Your task to perform on an android device: add a contact Image 0: 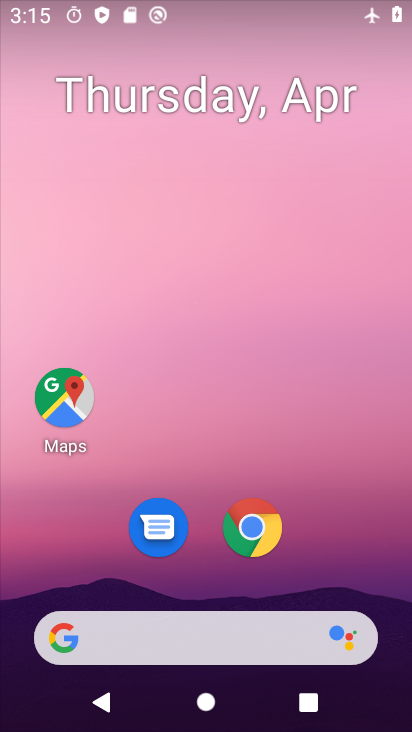
Step 0: drag from (347, 544) to (309, 124)
Your task to perform on an android device: add a contact Image 1: 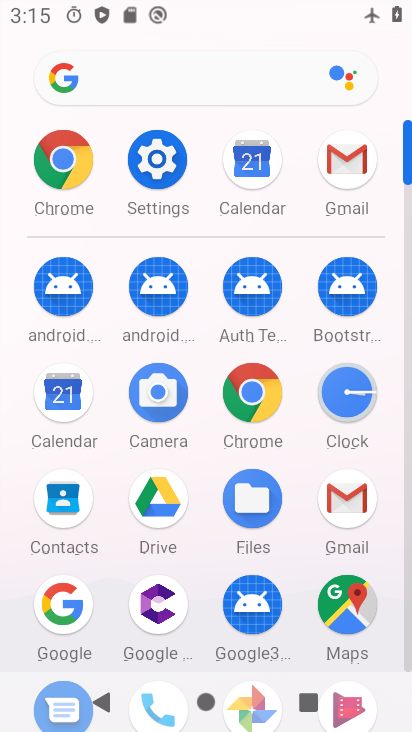
Step 1: click (69, 495)
Your task to perform on an android device: add a contact Image 2: 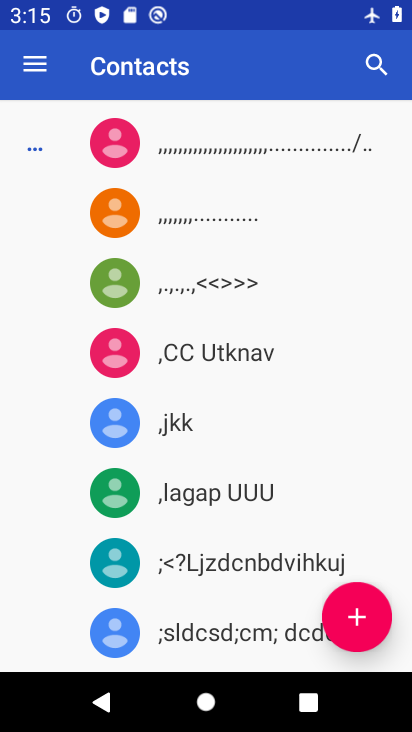
Step 2: click (359, 595)
Your task to perform on an android device: add a contact Image 3: 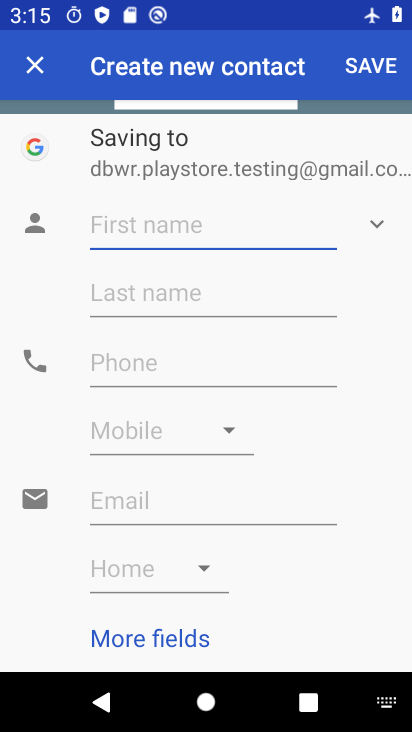
Step 3: type "ffjuyygkjjygkjgkgkgkjjf"
Your task to perform on an android device: add a contact Image 4: 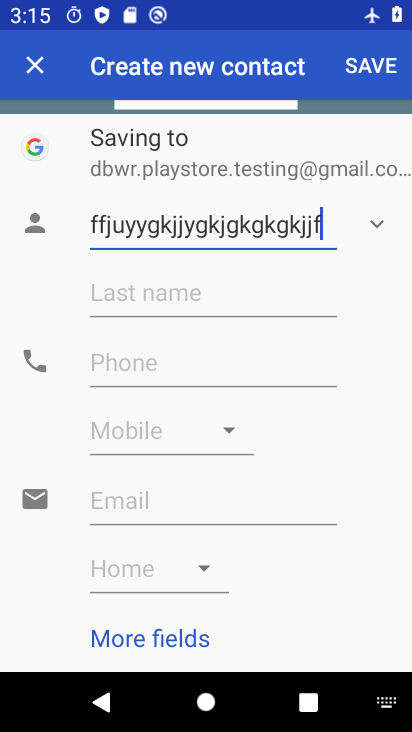
Step 4: click (384, 74)
Your task to perform on an android device: add a contact Image 5: 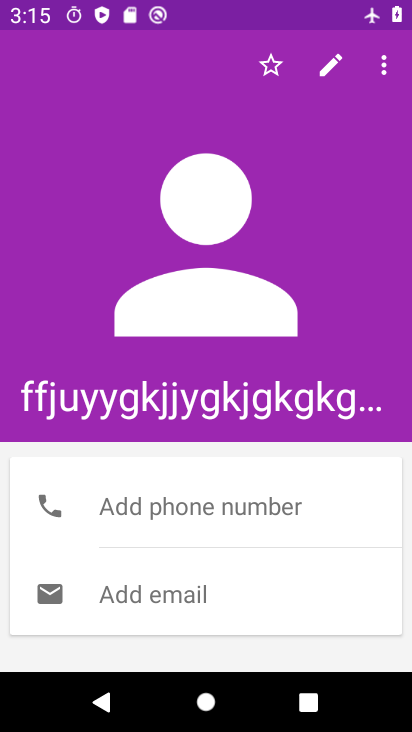
Step 5: task complete